Your task to perform on an android device: Do I have any events this weekend? Image 0: 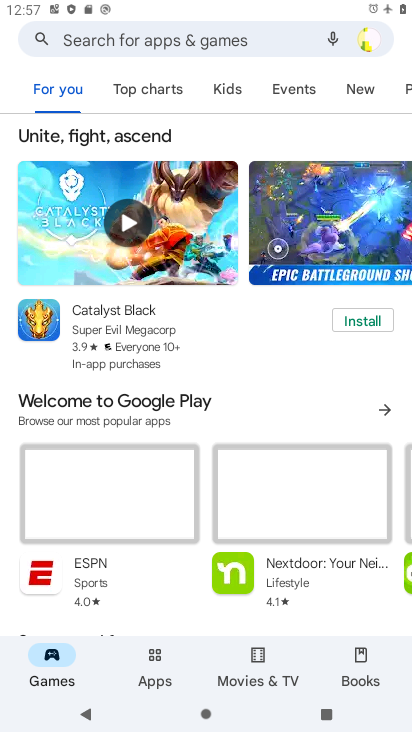
Step 0: press home button
Your task to perform on an android device: Do I have any events this weekend? Image 1: 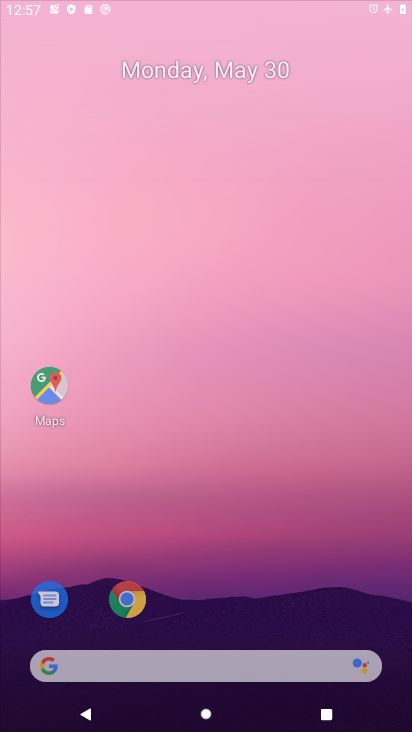
Step 1: press home button
Your task to perform on an android device: Do I have any events this weekend? Image 2: 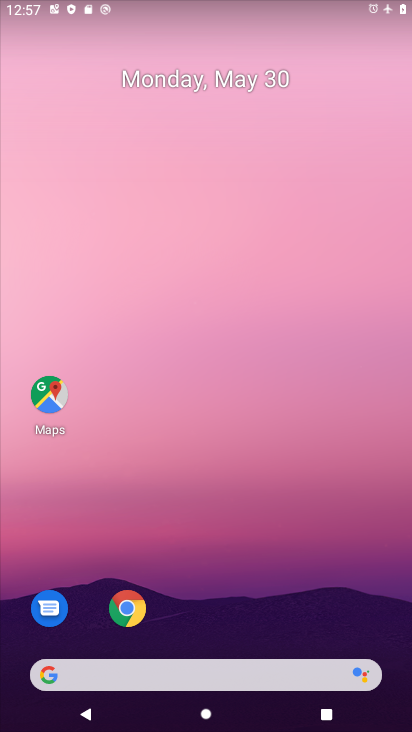
Step 2: drag from (242, 550) to (275, 128)
Your task to perform on an android device: Do I have any events this weekend? Image 3: 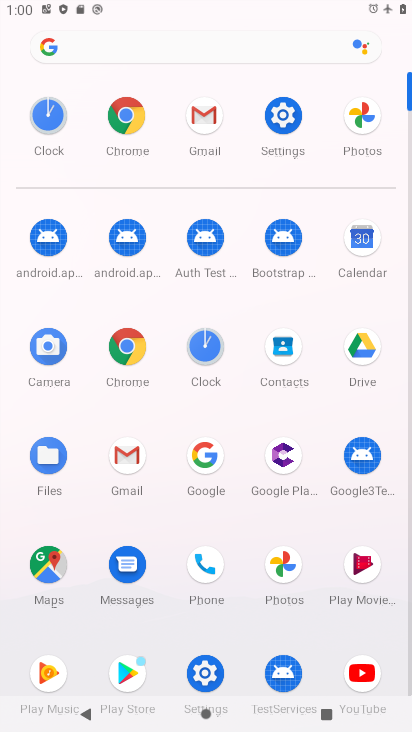
Step 3: drag from (404, 546) to (399, 88)
Your task to perform on an android device: Do I have any events this weekend? Image 4: 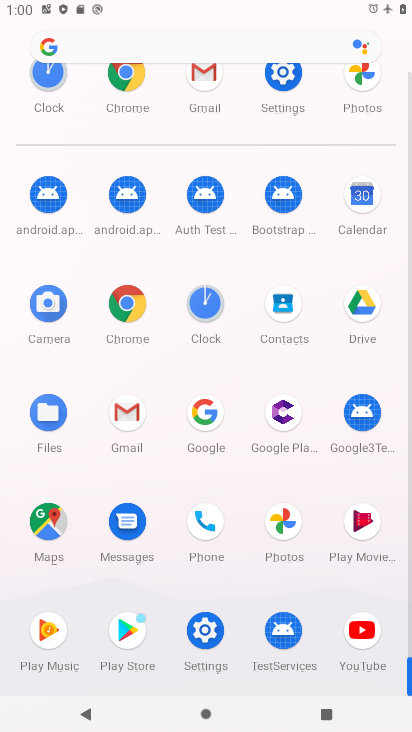
Step 4: click (368, 204)
Your task to perform on an android device: Do I have any events this weekend? Image 5: 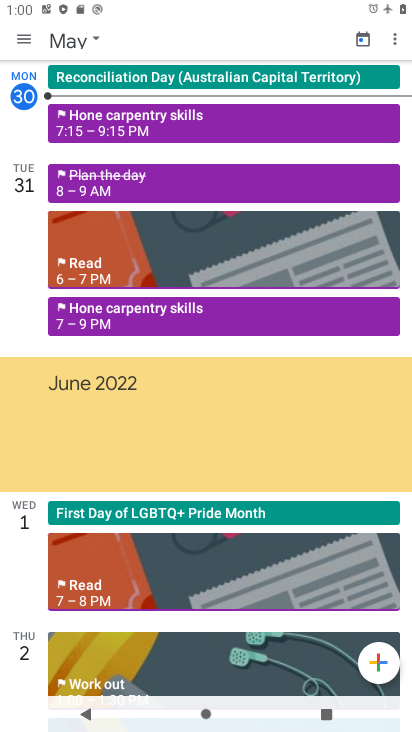
Step 5: task complete